Your task to perform on an android device: add a contact in the contacts app Image 0: 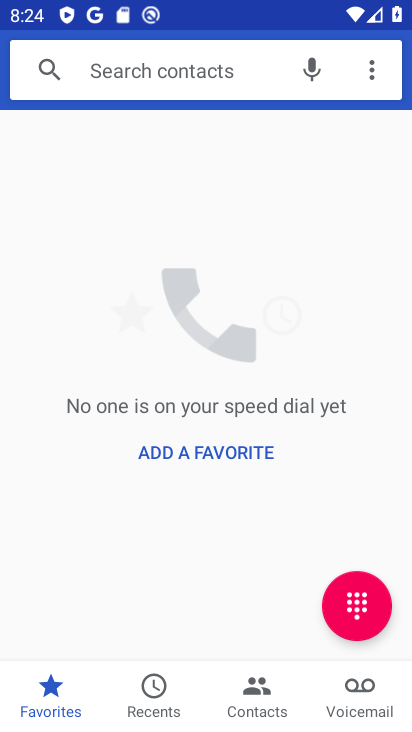
Step 0: press home button
Your task to perform on an android device: add a contact in the contacts app Image 1: 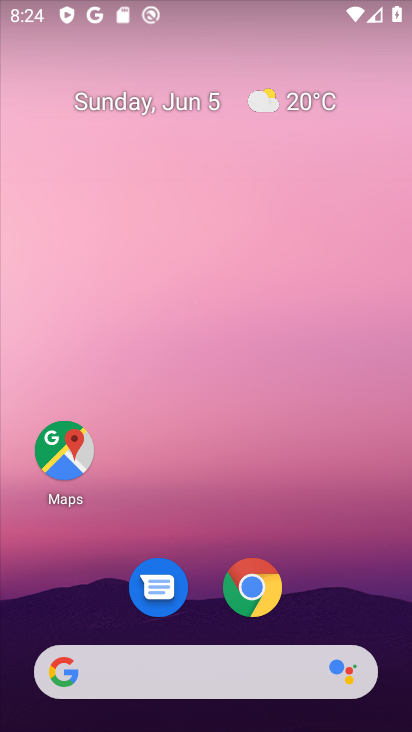
Step 1: drag from (301, 602) to (217, 88)
Your task to perform on an android device: add a contact in the contacts app Image 2: 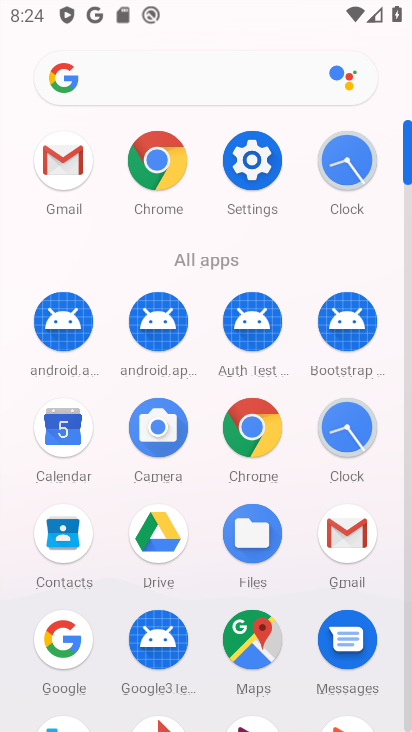
Step 2: click (69, 519)
Your task to perform on an android device: add a contact in the contacts app Image 3: 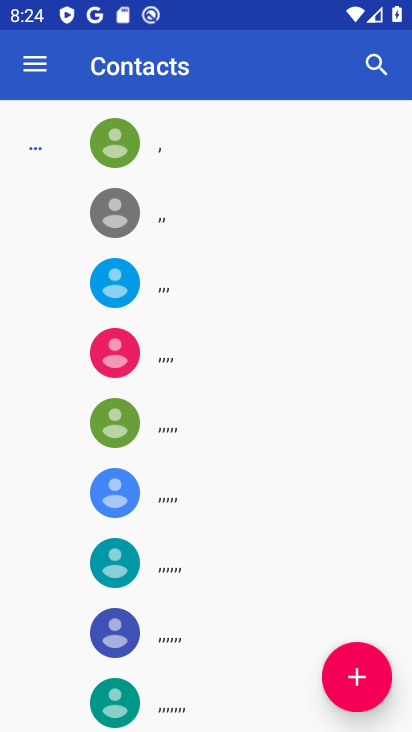
Step 3: click (337, 668)
Your task to perform on an android device: add a contact in the contacts app Image 4: 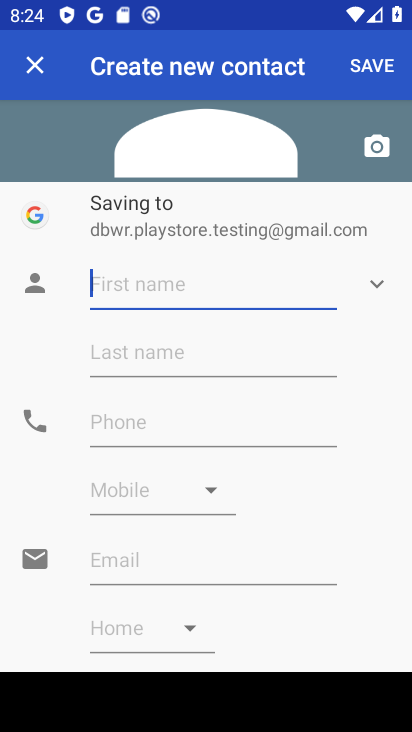
Step 4: click (245, 270)
Your task to perform on an android device: add a contact in the contacts app Image 5: 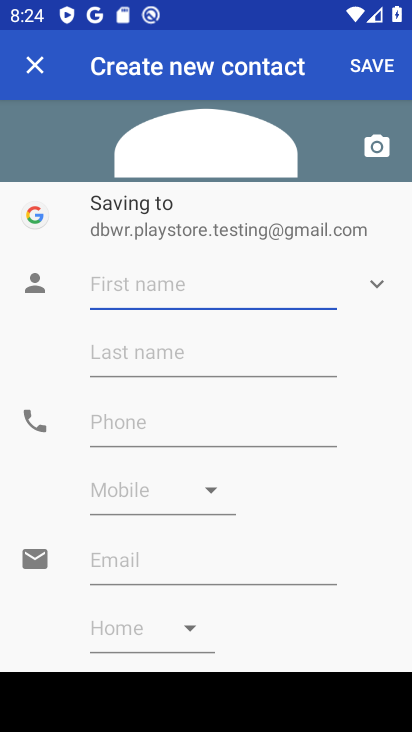
Step 5: click (245, 270)
Your task to perform on an android device: add a contact in the contacts app Image 6: 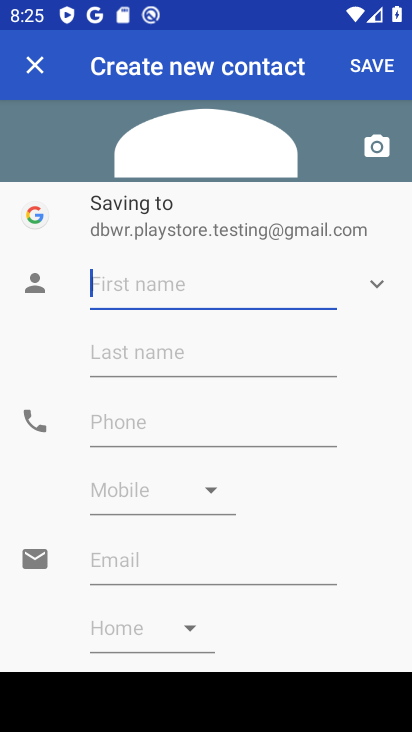
Step 6: type "kmsdkfdf"
Your task to perform on an android device: add a contact in the contacts app Image 7: 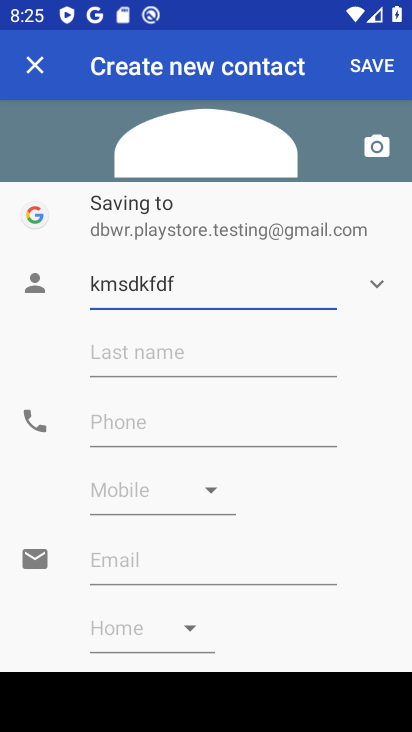
Step 7: click (146, 430)
Your task to perform on an android device: add a contact in the contacts app Image 8: 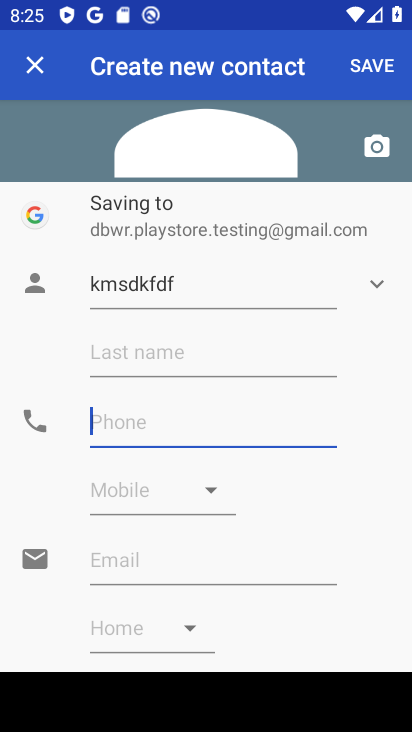
Step 8: type "7987398130"
Your task to perform on an android device: add a contact in the contacts app Image 9: 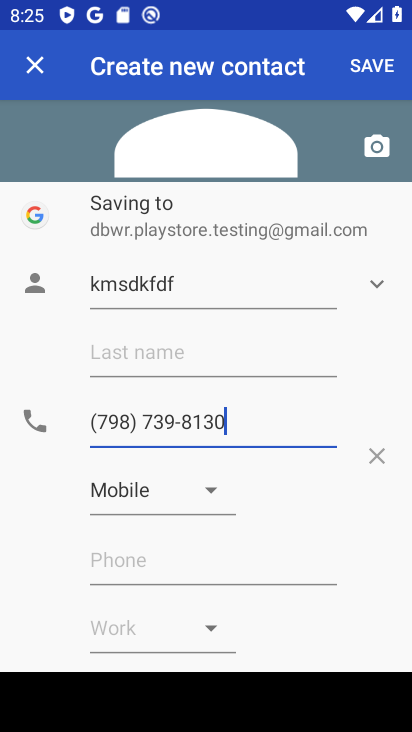
Step 9: click (377, 74)
Your task to perform on an android device: add a contact in the contacts app Image 10: 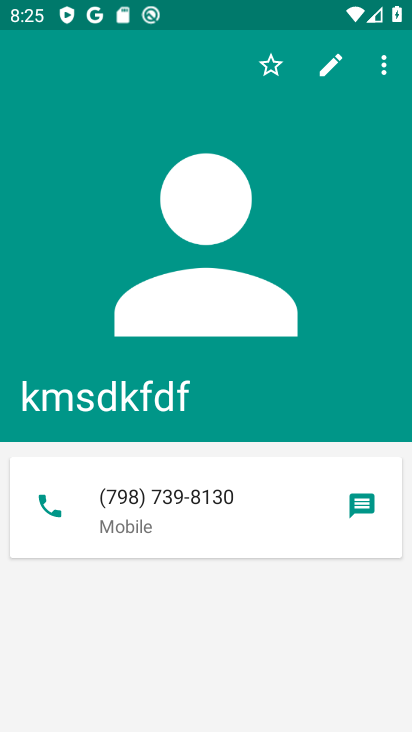
Step 10: task complete